Your task to perform on an android device: Open notification settings Image 0: 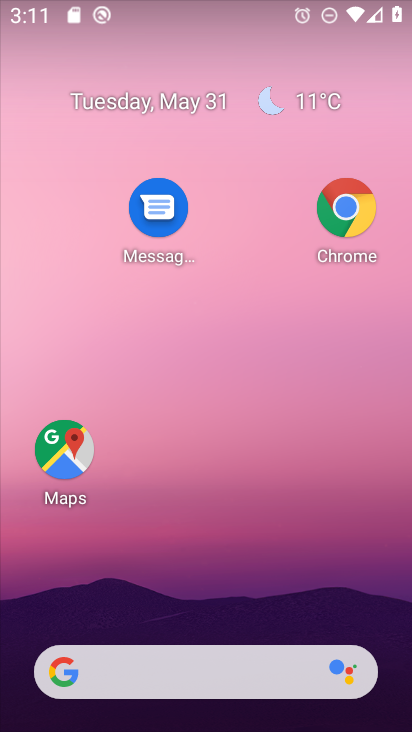
Step 0: drag from (203, 593) to (165, 197)
Your task to perform on an android device: Open notification settings Image 1: 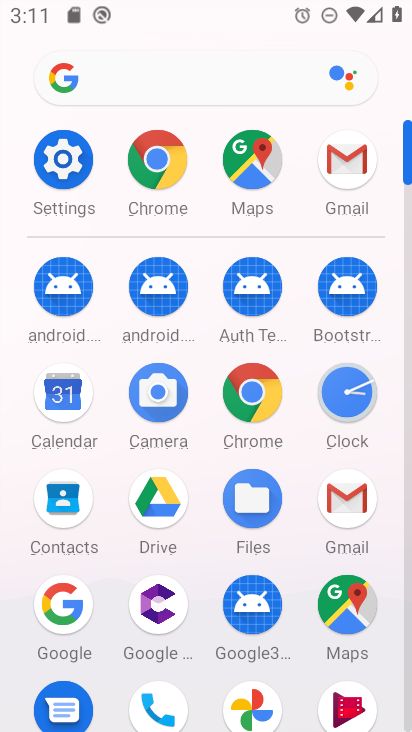
Step 1: click (48, 140)
Your task to perform on an android device: Open notification settings Image 2: 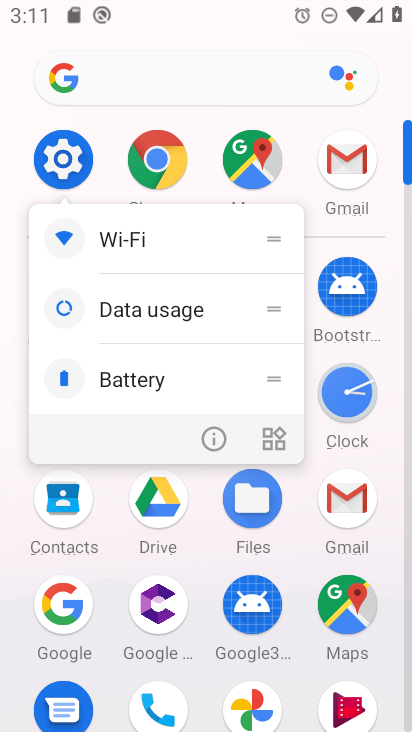
Step 2: click (212, 429)
Your task to perform on an android device: Open notification settings Image 3: 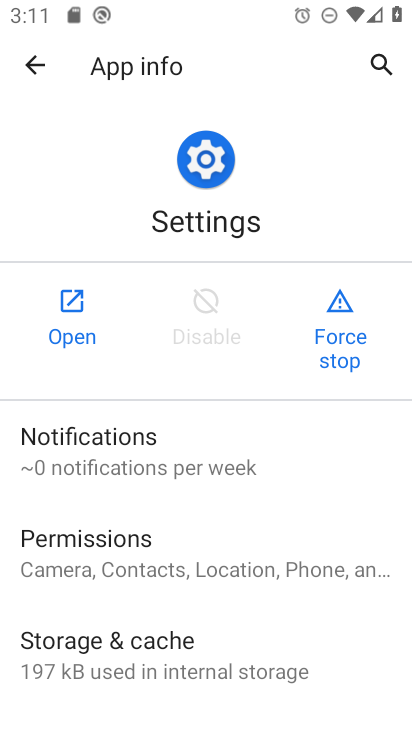
Step 3: click (146, 443)
Your task to perform on an android device: Open notification settings Image 4: 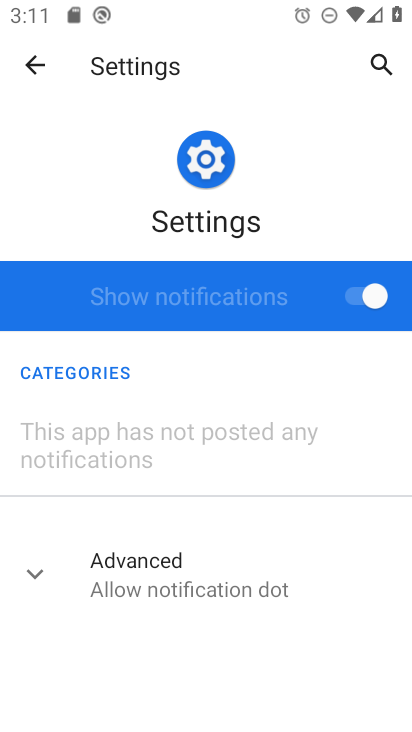
Step 4: task complete